Your task to perform on an android device: turn on translation in the chrome app Image 0: 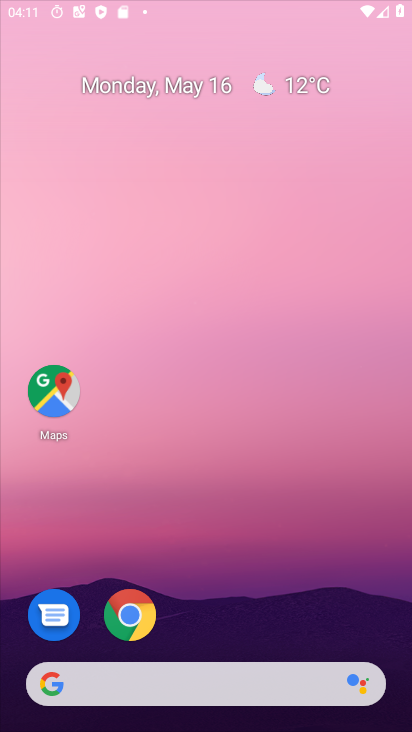
Step 0: click (210, 32)
Your task to perform on an android device: turn on translation in the chrome app Image 1: 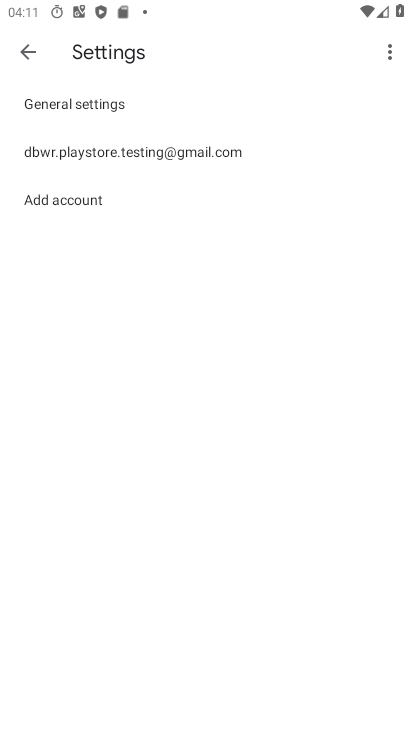
Step 1: click (23, 53)
Your task to perform on an android device: turn on translation in the chrome app Image 2: 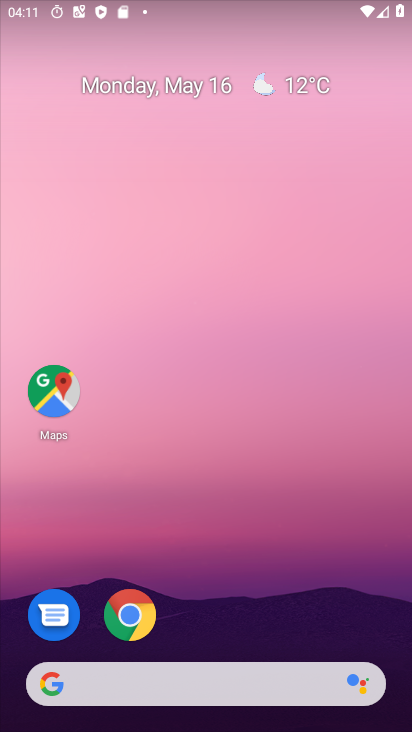
Step 2: drag from (292, 667) to (190, 13)
Your task to perform on an android device: turn on translation in the chrome app Image 3: 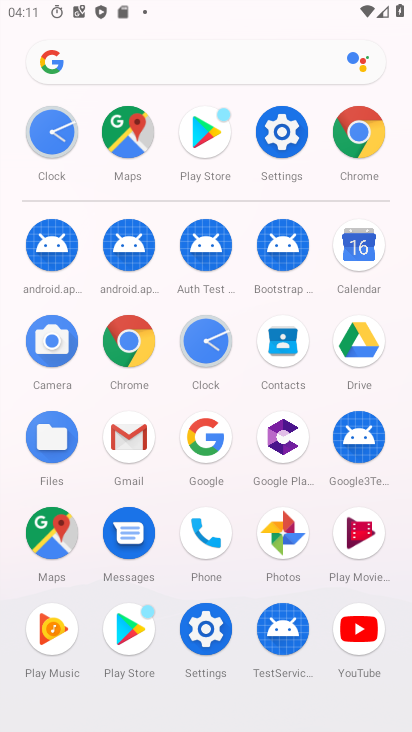
Step 3: click (364, 134)
Your task to perform on an android device: turn on translation in the chrome app Image 4: 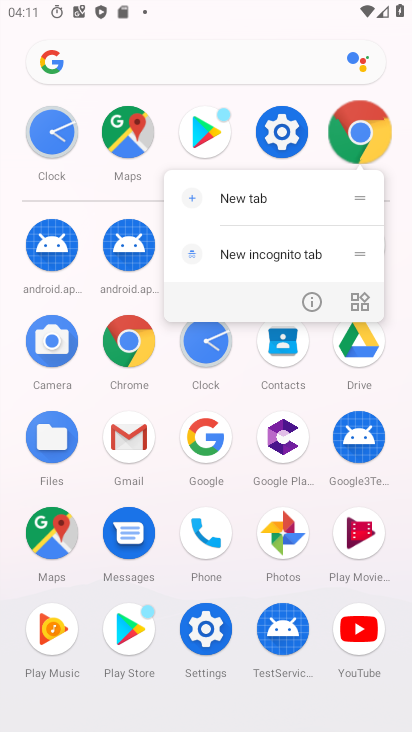
Step 4: click (363, 133)
Your task to perform on an android device: turn on translation in the chrome app Image 5: 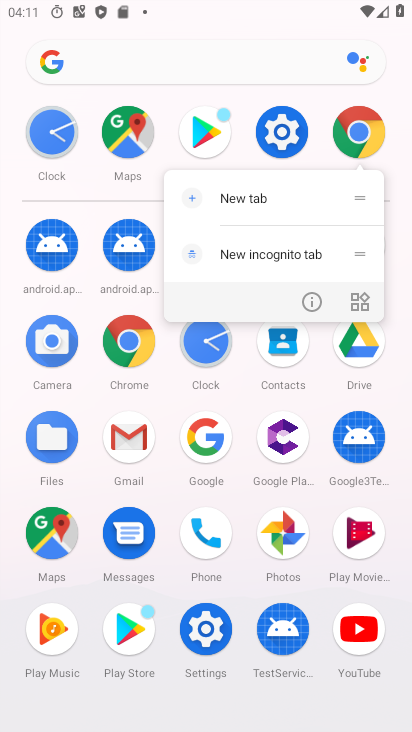
Step 5: click (363, 133)
Your task to perform on an android device: turn on translation in the chrome app Image 6: 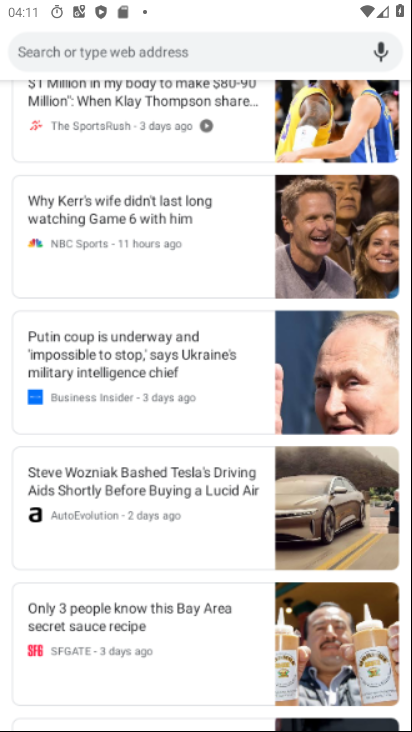
Step 6: click (363, 133)
Your task to perform on an android device: turn on translation in the chrome app Image 7: 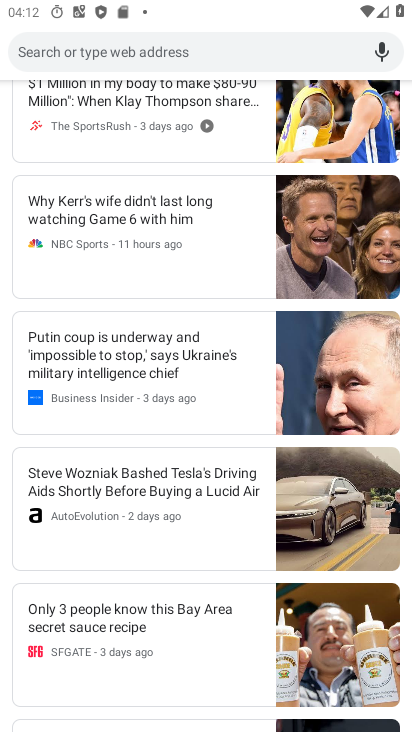
Step 7: drag from (134, 186) to (199, 599)
Your task to perform on an android device: turn on translation in the chrome app Image 8: 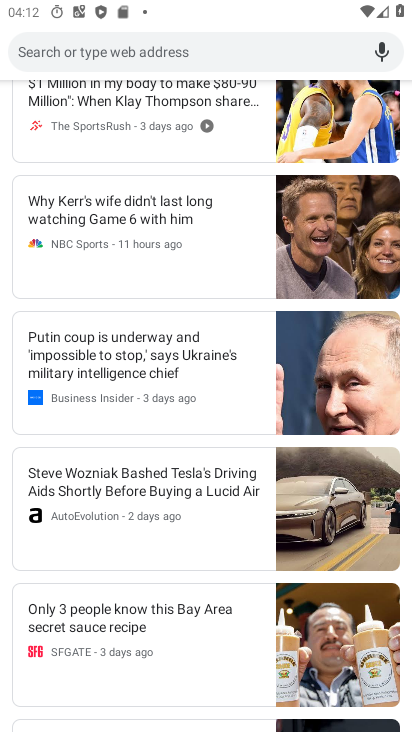
Step 8: drag from (128, 220) to (200, 653)
Your task to perform on an android device: turn on translation in the chrome app Image 9: 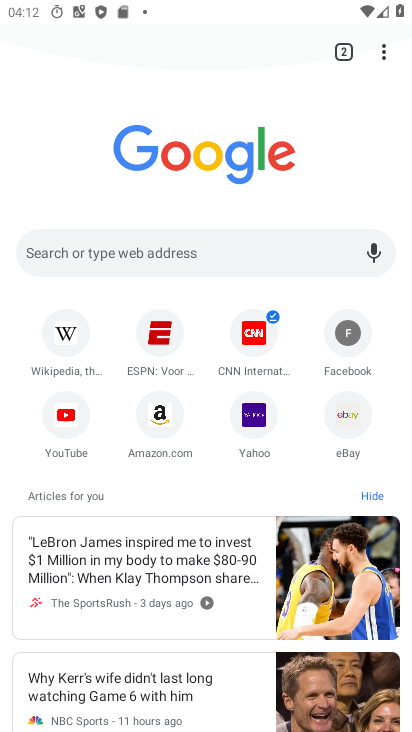
Step 9: drag from (157, 252) to (263, 695)
Your task to perform on an android device: turn on translation in the chrome app Image 10: 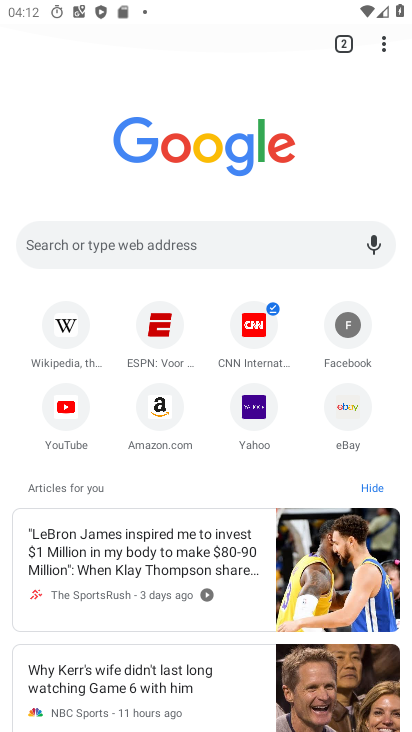
Step 10: drag from (183, 329) to (237, 715)
Your task to perform on an android device: turn on translation in the chrome app Image 11: 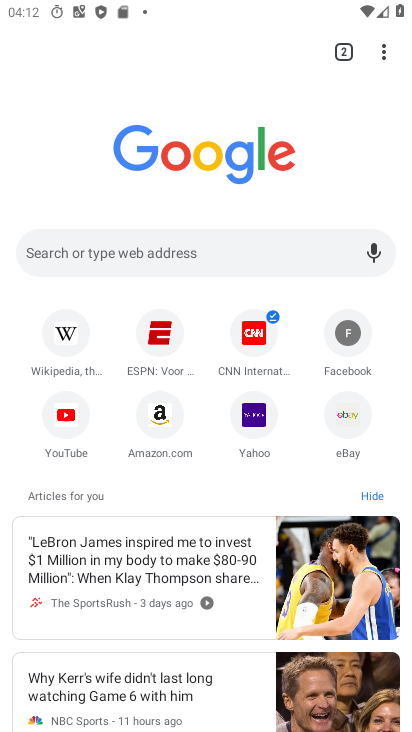
Step 11: drag from (383, 55) to (201, 480)
Your task to perform on an android device: turn on translation in the chrome app Image 12: 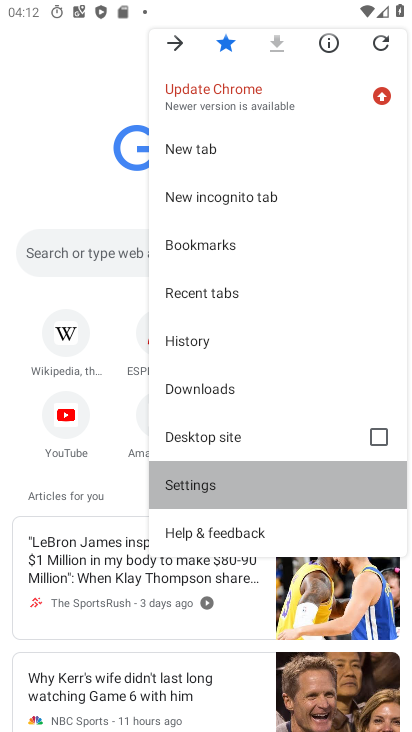
Step 12: click (201, 481)
Your task to perform on an android device: turn on translation in the chrome app Image 13: 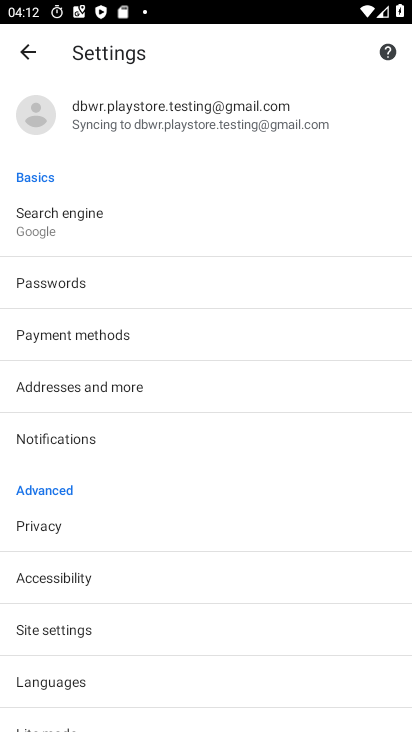
Step 13: click (43, 678)
Your task to perform on an android device: turn on translation in the chrome app Image 14: 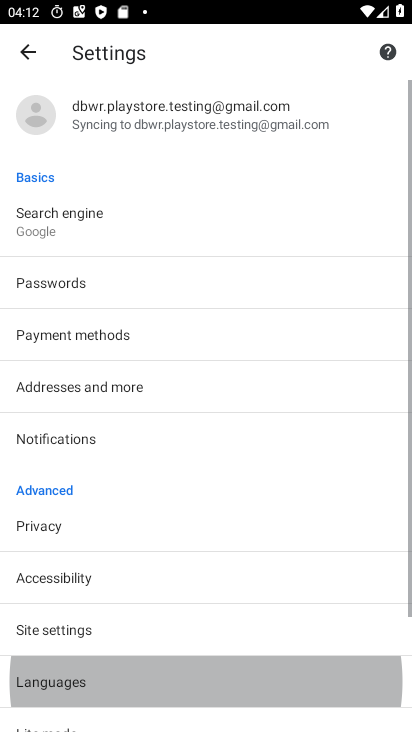
Step 14: click (46, 683)
Your task to perform on an android device: turn on translation in the chrome app Image 15: 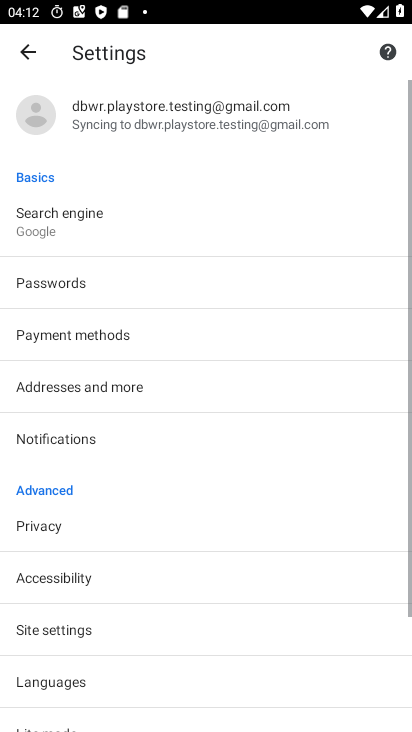
Step 15: click (52, 690)
Your task to perform on an android device: turn on translation in the chrome app Image 16: 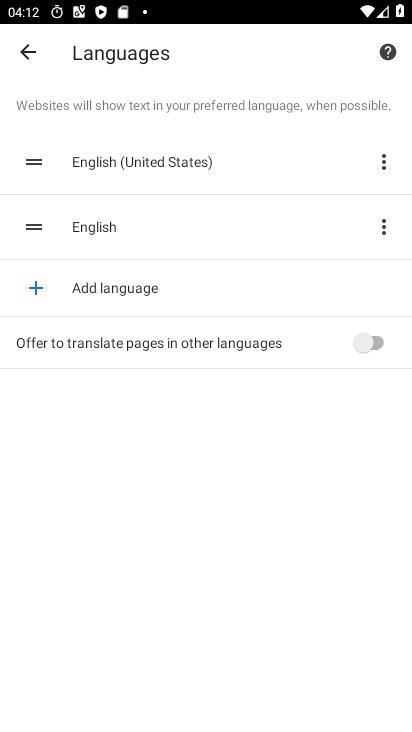
Step 16: click (349, 341)
Your task to perform on an android device: turn on translation in the chrome app Image 17: 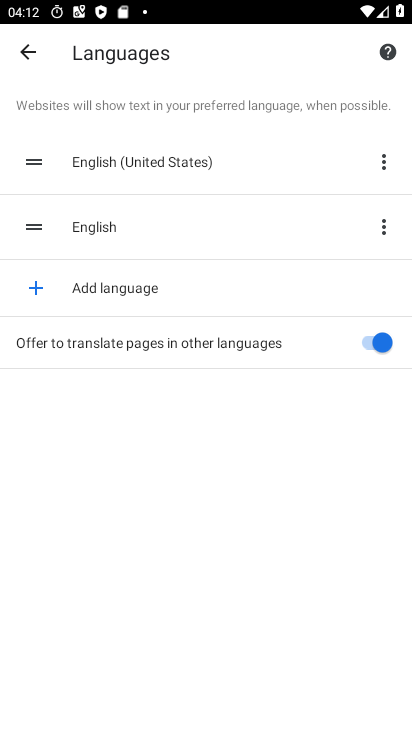
Step 17: task complete